Your task to perform on an android device: turn smart compose on in the gmail app Image 0: 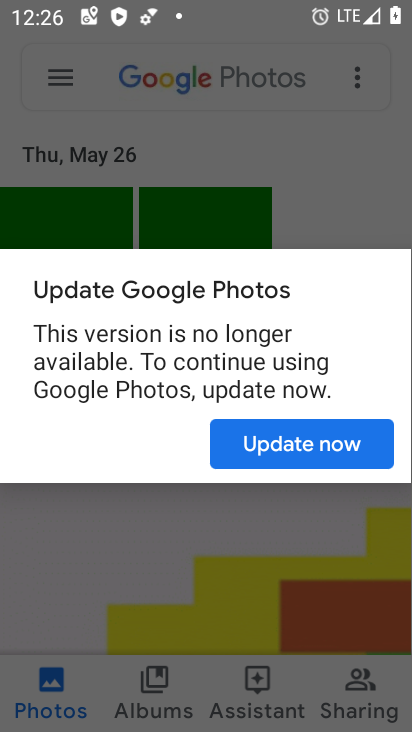
Step 0: press home button
Your task to perform on an android device: turn smart compose on in the gmail app Image 1: 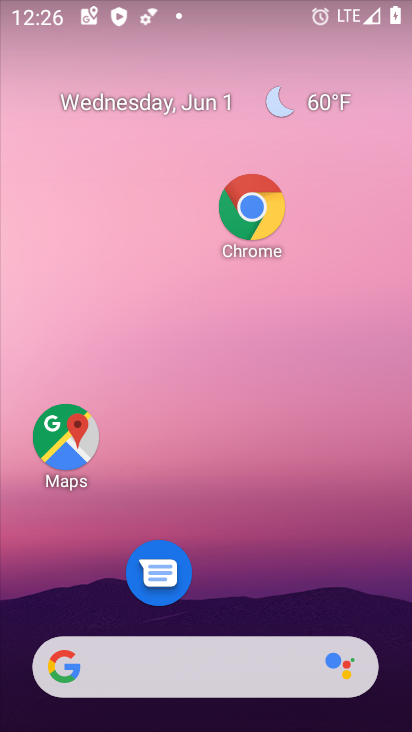
Step 1: drag from (219, 615) to (219, 223)
Your task to perform on an android device: turn smart compose on in the gmail app Image 2: 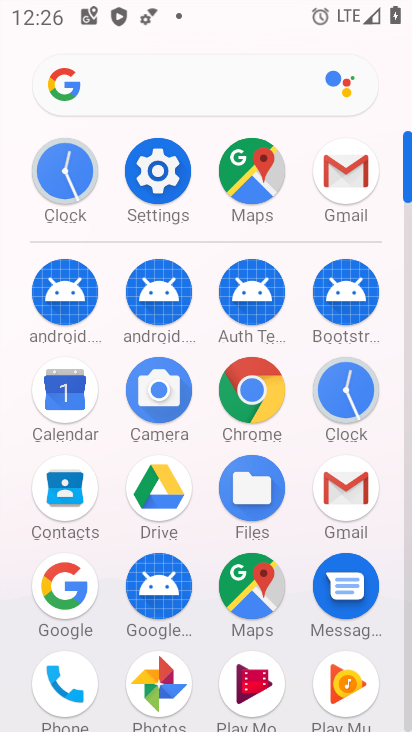
Step 2: click (329, 172)
Your task to perform on an android device: turn smart compose on in the gmail app Image 3: 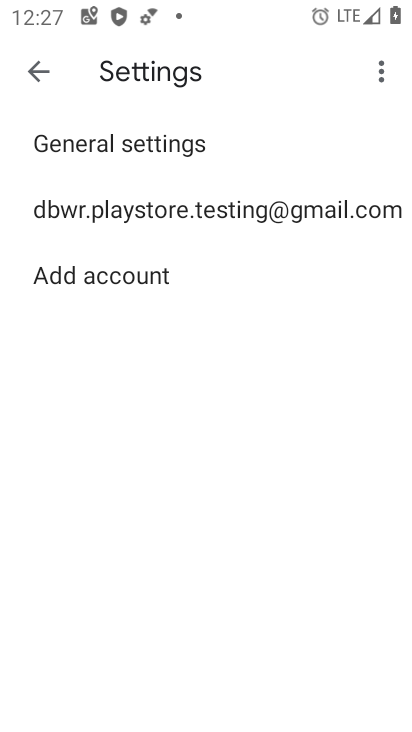
Step 3: click (158, 205)
Your task to perform on an android device: turn smart compose on in the gmail app Image 4: 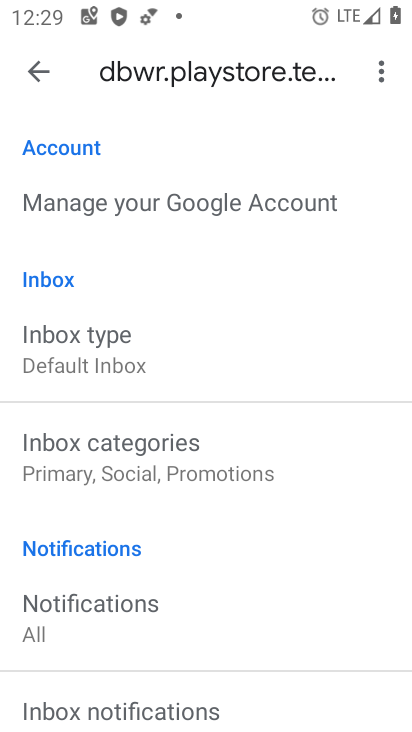
Step 4: task complete